Your task to perform on an android device: Go to battery settings Image 0: 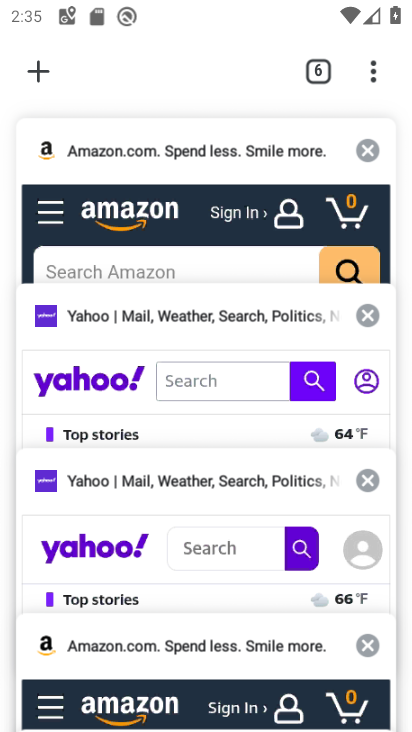
Step 0: press home button
Your task to perform on an android device: Go to battery settings Image 1: 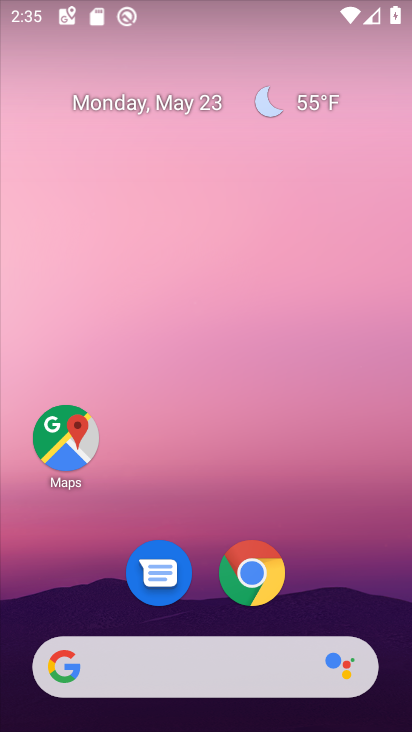
Step 1: drag from (327, 593) to (295, 36)
Your task to perform on an android device: Go to battery settings Image 2: 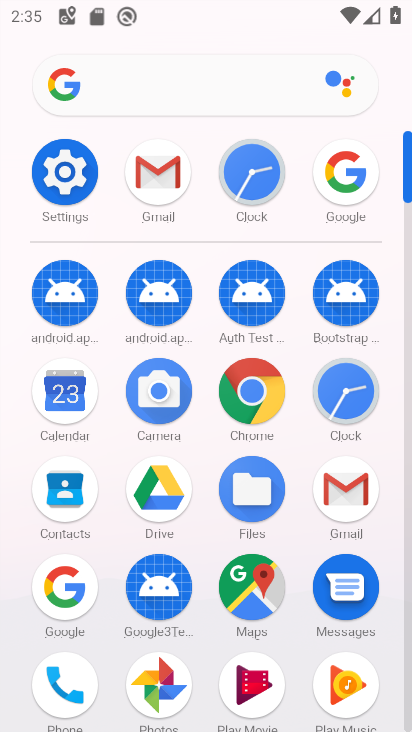
Step 2: click (69, 174)
Your task to perform on an android device: Go to battery settings Image 3: 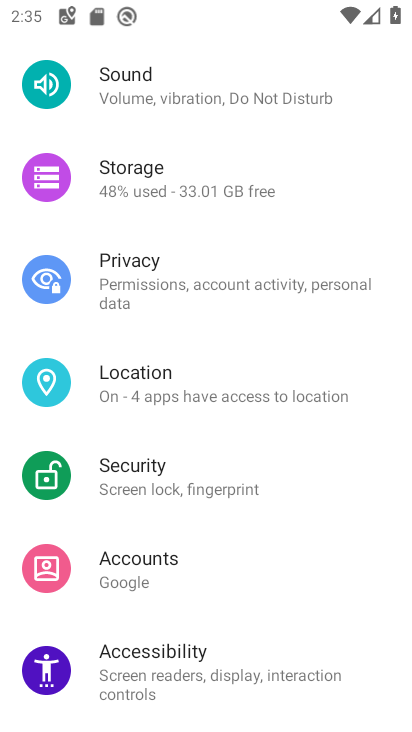
Step 3: drag from (301, 196) to (302, 531)
Your task to perform on an android device: Go to battery settings Image 4: 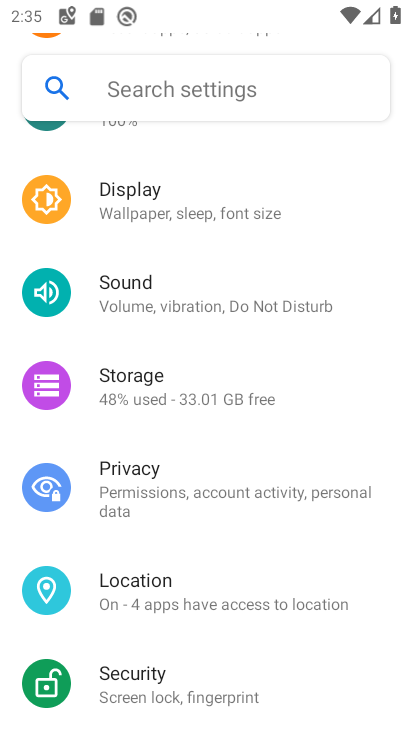
Step 4: drag from (276, 216) to (263, 534)
Your task to perform on an android device: Go to battery settings Image 5: 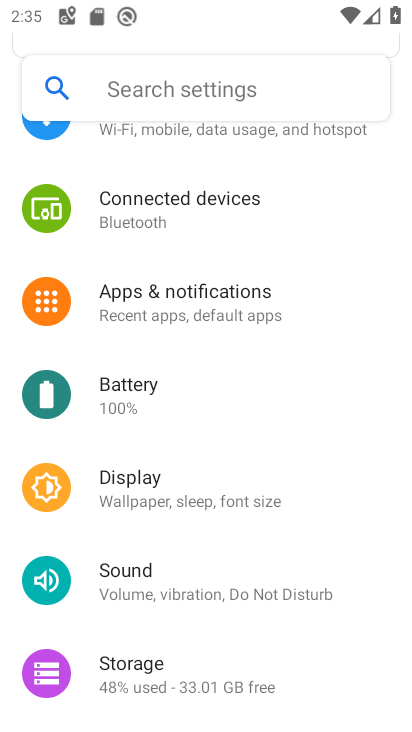
Step 5: click (132, 401)
Your task to perform on an android device: Go to battery settings Image 6: 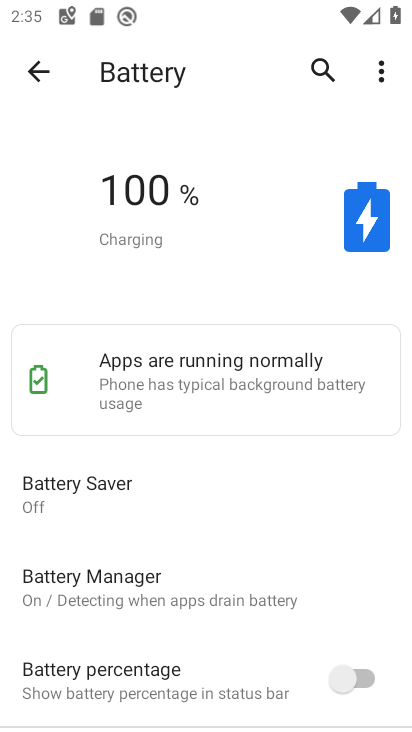
Step 6: task complete